Your task to perform on an android device: move an email to a new category in the gmail app Image 0: 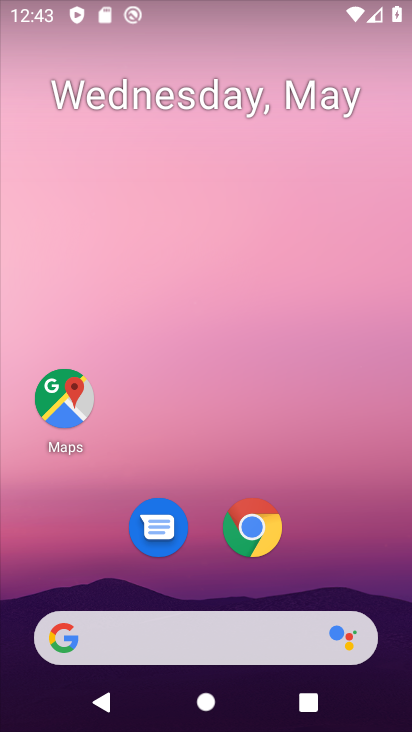
Step 0: drag from (202, 566) to (212, 113)
Your task to perform on an android device: move an email to a new category in the gmail app Image 1: 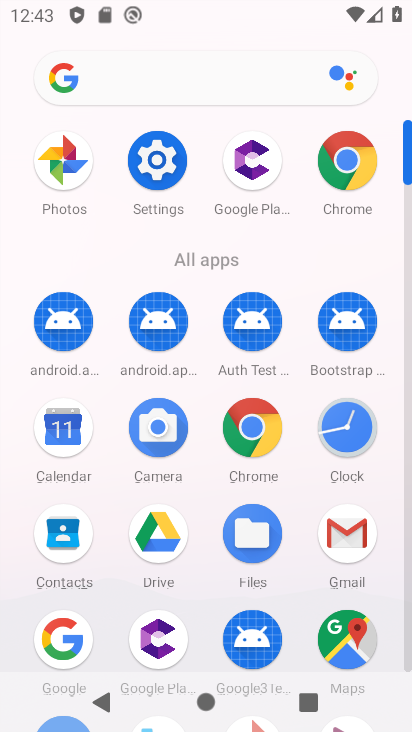
Step 1: click (358, 525)
Your task to perform on an android device: move an email to a new category in the gmail app Image 2: 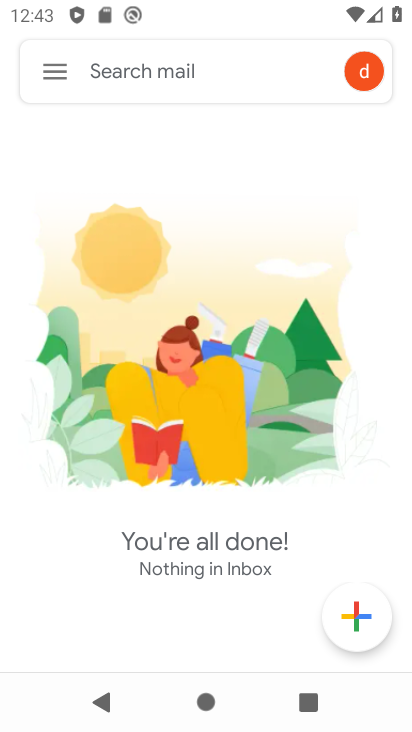
Step 2: task complete